Your task to perform on an android device: Turn on the flashlight Image 0: 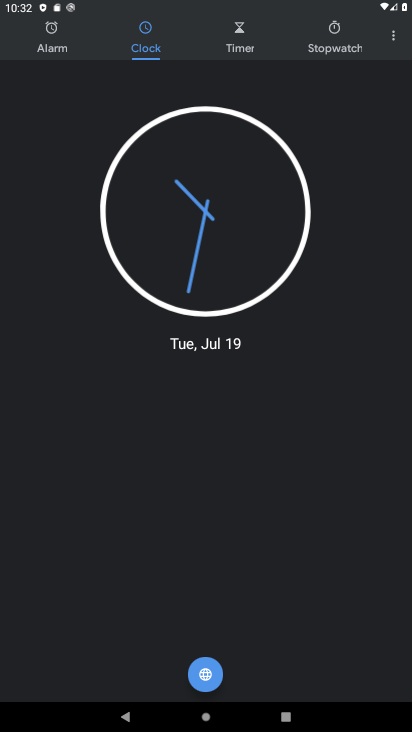
Step 0: press back button
Your task to perform on an android device: Turn on the flashlight Image 1: 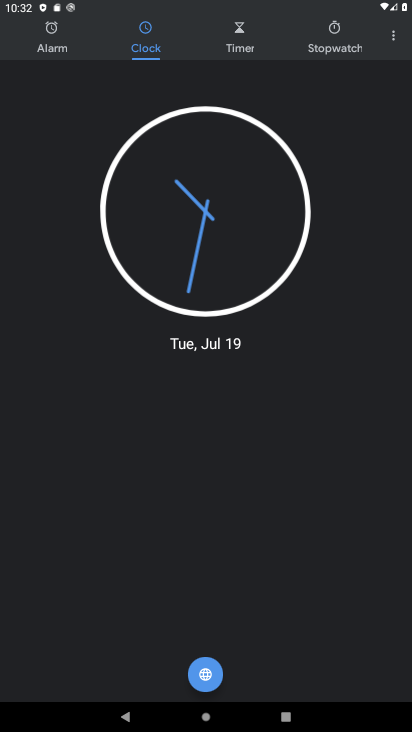
Step 1: task complete